Your task to perform on an android device: Go to privacy settings Image 0: 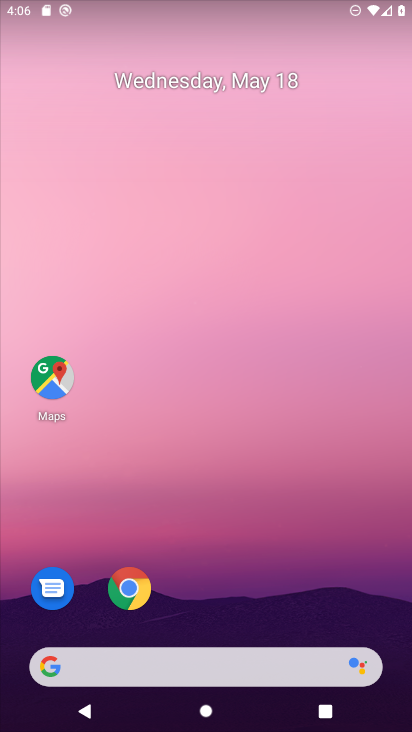
Step 0: click (307, 584)
Your task to perform on an android device: Go to privacy settings Image 1: 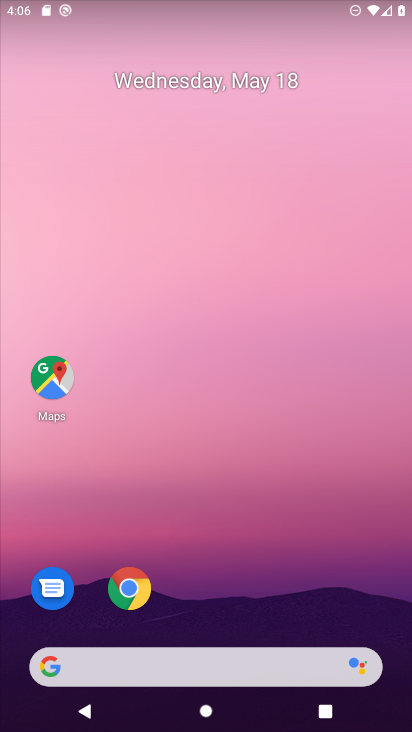
Step 1: drag from (307, 584) to (338, 4)
Your task to perform on an android device: Go to privacy settings Image 2: 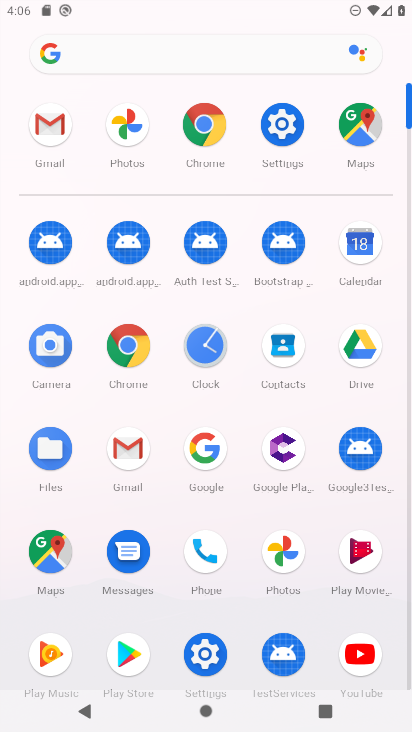
Step 2: click (277, 177)
Your task to perform on an android device: Go to privacy settings Image 3: 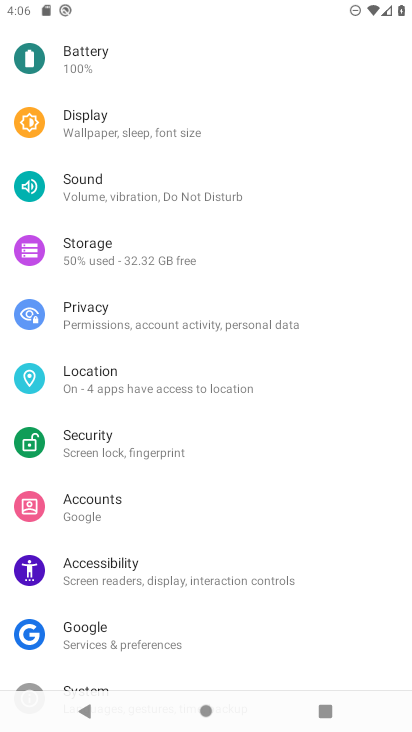
Step 3: click (196, 318)
Your task to perform on an android device: Go to privacy settings Image 4: 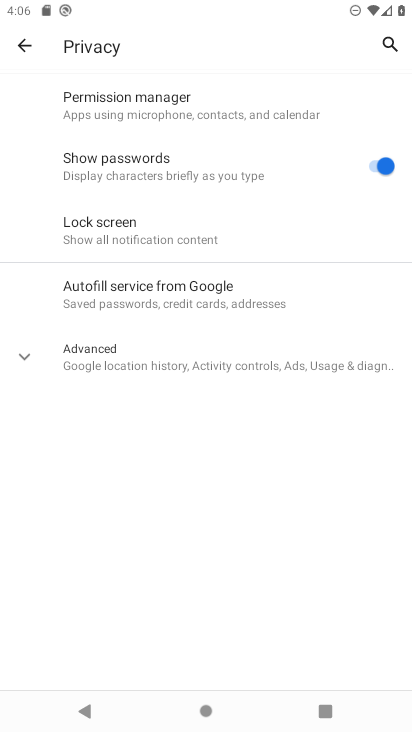
Step 4: task complete